Your task to perform on an android device: Open Google Maps and go to "Timeline" Image 0: 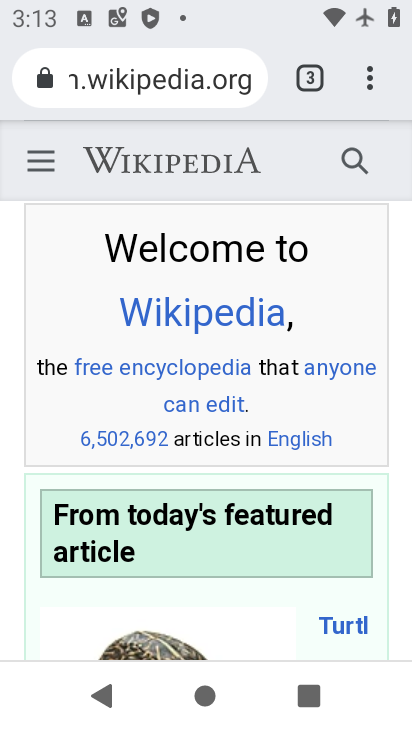
Step 0: press home button
Your task to perform on an android device: Open Google Maps and go to "Timeline" Image 1: 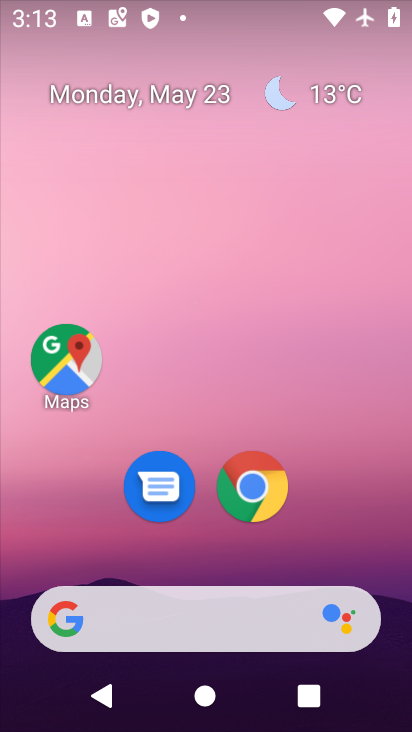
Step 1: click (64, 359)
Your task to perform on an android device: Open Google Maps and go to "Timeline" Image 2: 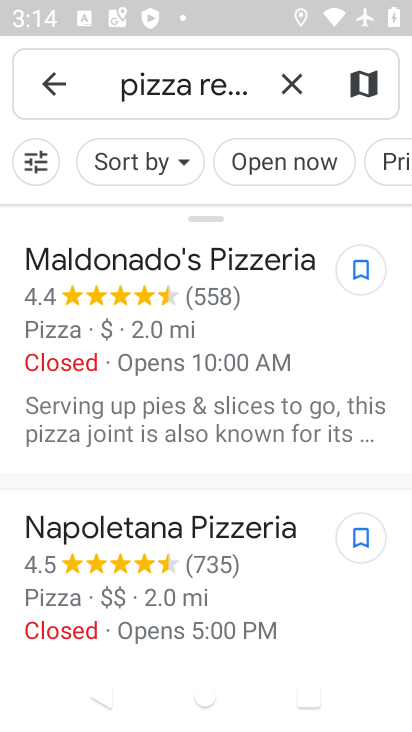
Step 2: click (279, 82)
Your task to perform on an android device: Open Google Maps and go to "Timeline" Image 3: 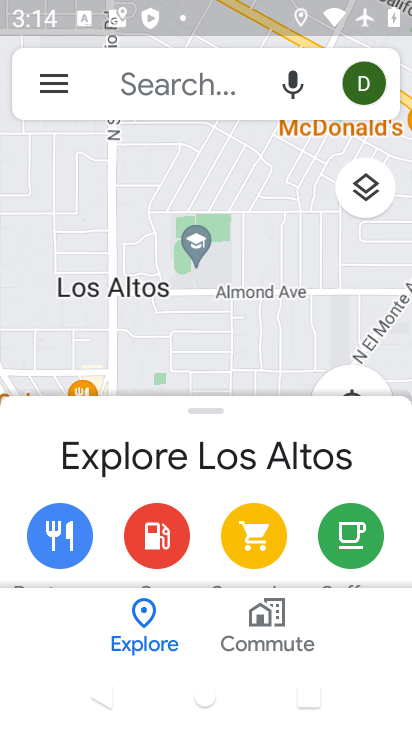
Step 3: click (61, 85)
Your task to perform on an android device: Open Google Maps and go to "Timeline" Image 4: 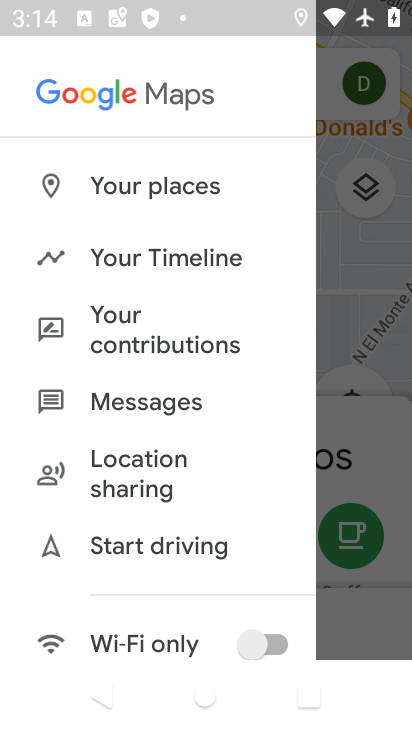
Step 4: click (127, 254)
Your task to perform on an android device: Open Google Maps and go to "Timeline" Image 5: 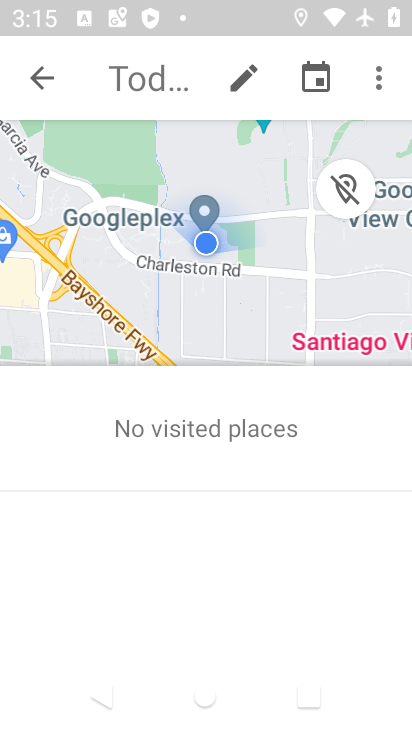
Step 5: task complete